Your task to perform on an android device: Open accessibility settings Image 0: 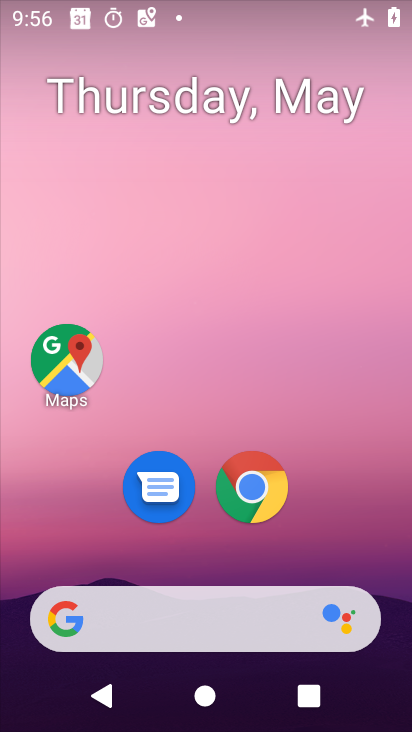
Step 0: drag from (224, 594) to (284, 150)
Your task to perform on an android device: Open accessibility settings Image 1: 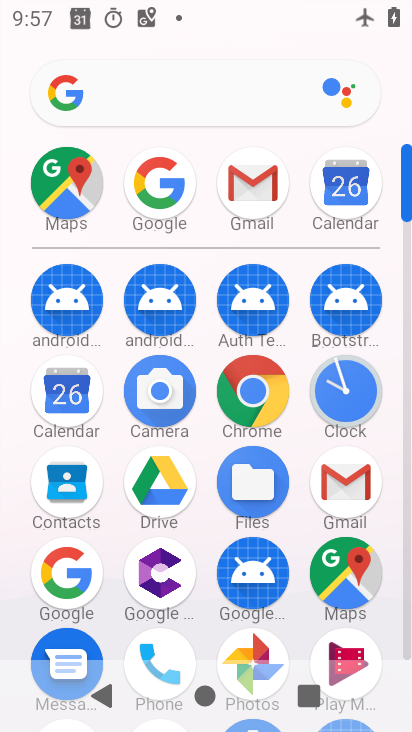
Step 1: drag from (261, 531) to (270, 205)
Your task to perform on an android device: Open accessibility settings Image 2: 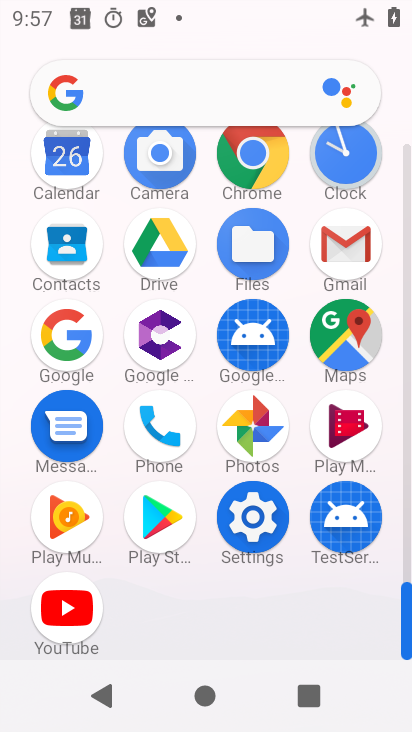
Step 2: click (249, 527)
Your task to perform on an android device: Open accessibility settings Image 3: 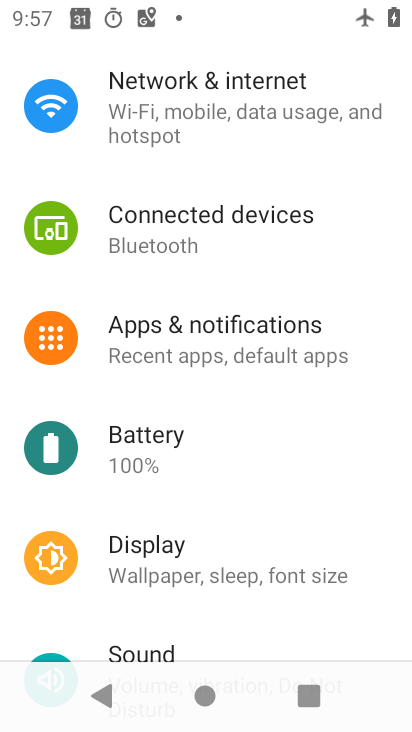
Step 3: drag from (191, 524) to (204, 192)
Your task to perform on an android device: Open accessibility settings Image 4: 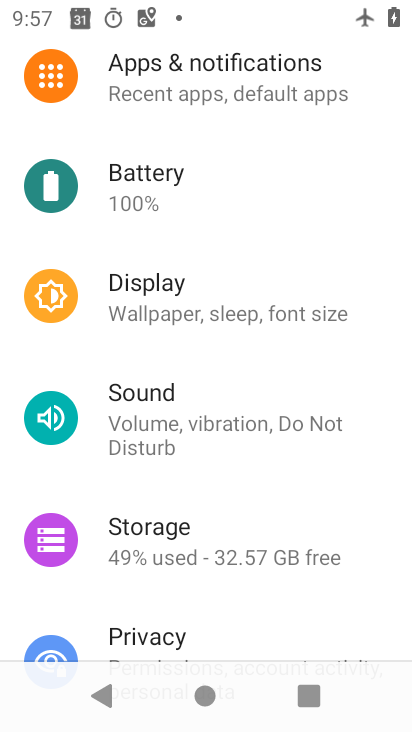
Step 4: drag from (217, 481) to (216, 173)
Your task to perform on an android device: Open accessibility settings Image 5: 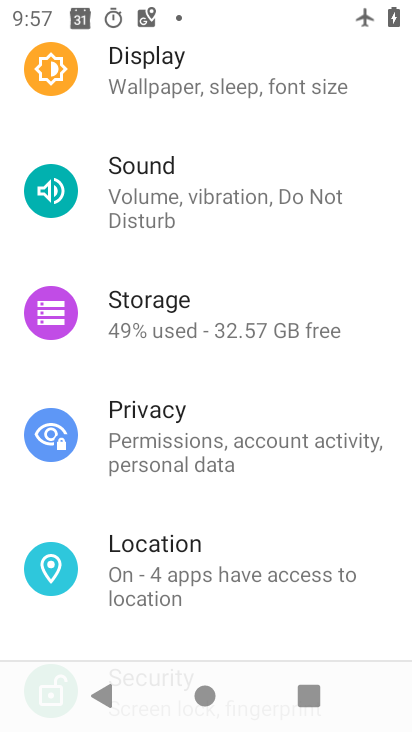
Step 5: drag from (185, 497) to (186, 234)
Your task to perform on an android device: Open accessibility settings Image 6: 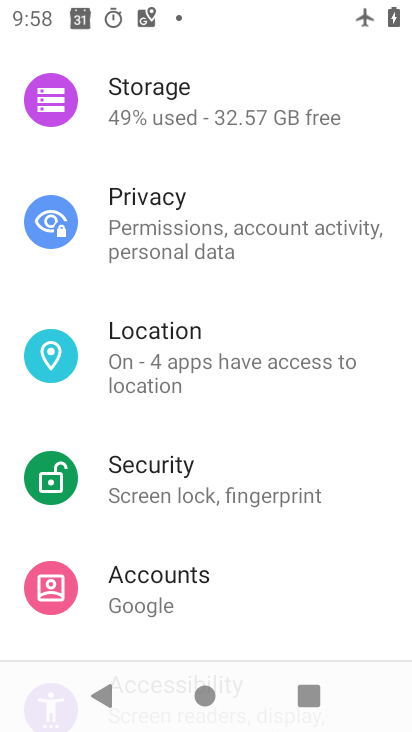
Step 6: drag from (188, 560) to (156, 115)
Your task to perform on an android device: Open accessibility settings Image 7: 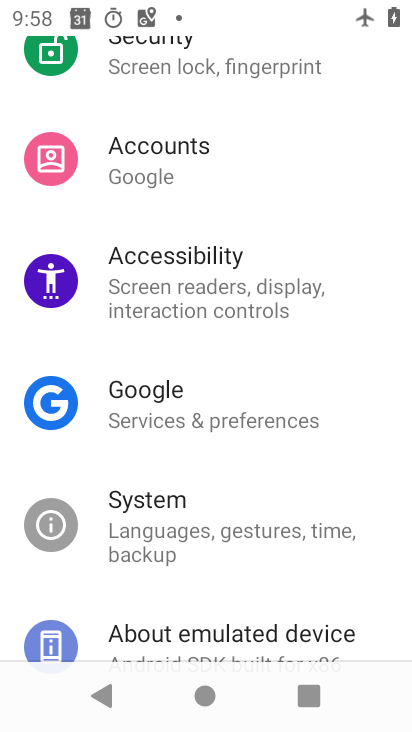
Step 7: click (224, 265)
Your task to perform on an android device: Open accessibility settings Image 8: 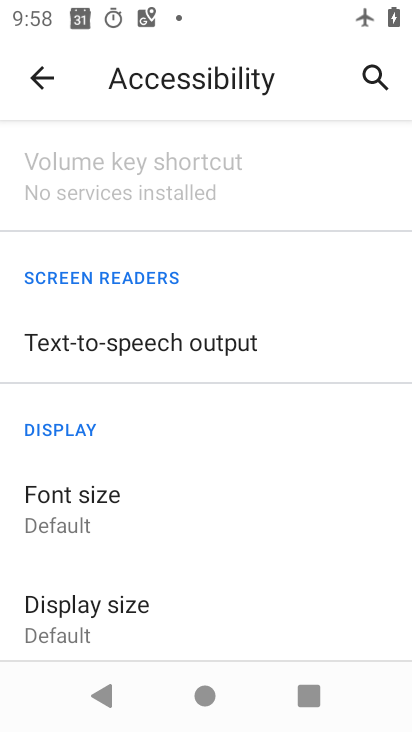
Step 8: task complete